Your task to perform on an android device: check the backup settings in the google photos Image 0: 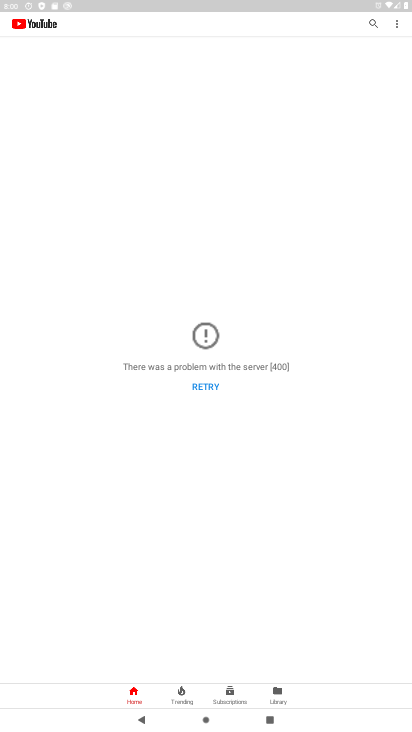
Step 0: press home button
Your task to perform on an android device: check the backup settings in the google photos Image 1: 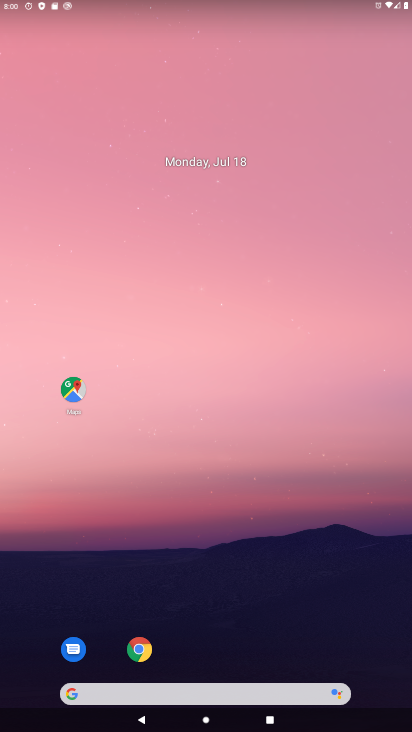
Step 1: drag from (282, 654) to (162, 118)
Your task to perform on an android device: check the backup settings in the google photos Image 2: 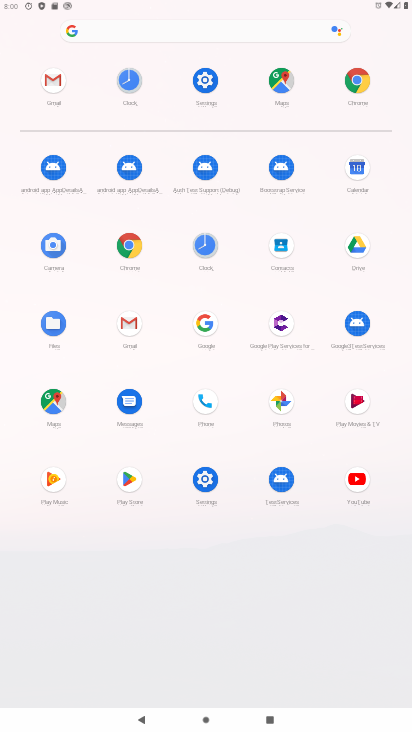
Step 2: click (277, 395)
Your task to perform on an android device: check the backup settings in the google photos Image 3: 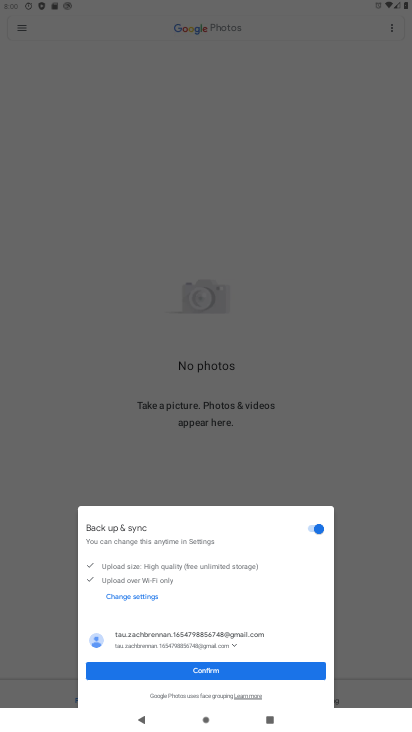
Step 3: click (280, 675)
Your task to perform on an android device: check the backup settings in the google photos Image 4: 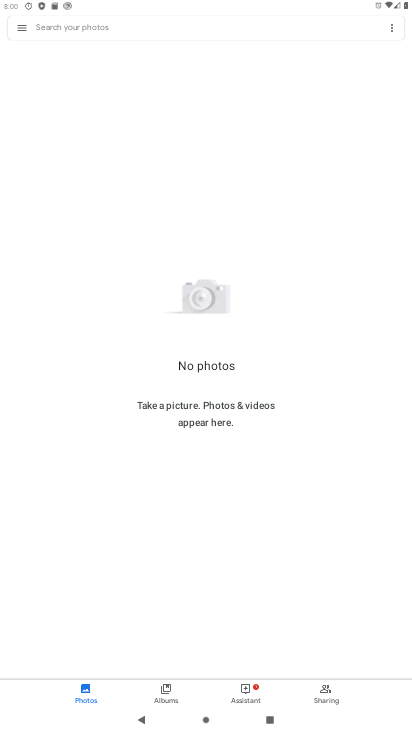
Step 4: click (26, 23)
Your task to perform on an android device: check the backup settings in the google photos Image 5: 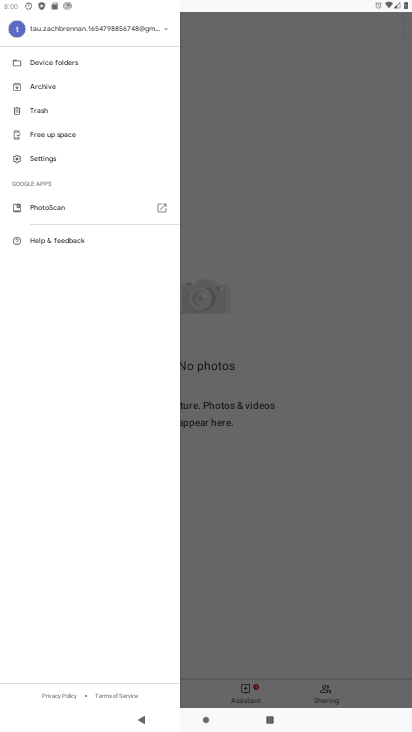
Step 5: click (42, 160)
Your task to perform on an android device: check the backup settings in the google photos Image 6: 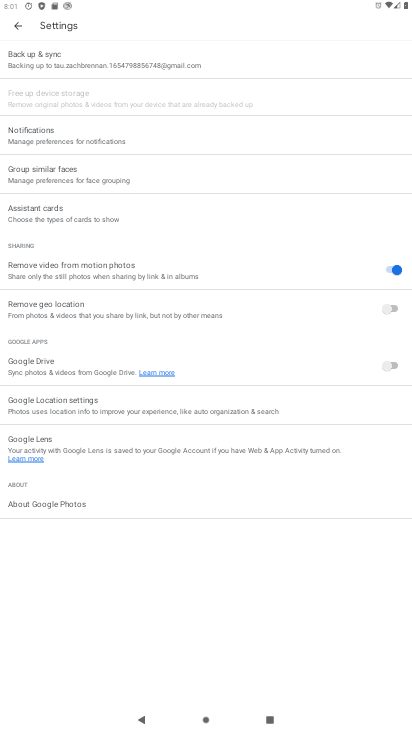
Step 6: click (141, 68)
Your task to perform on an android device: check the backup settings in the google photos Image 7: 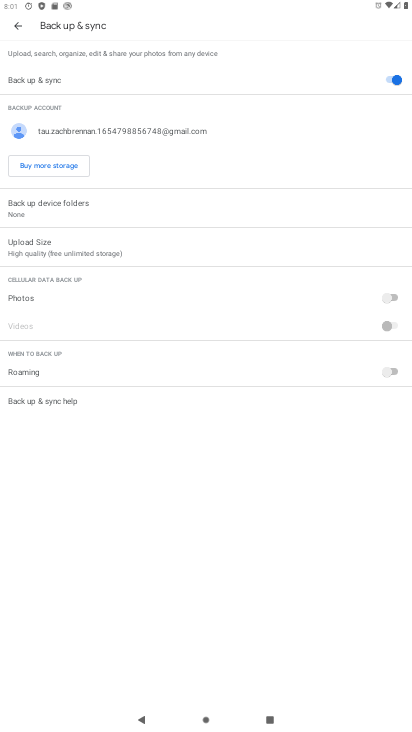
Step 7: task complete